Your task to perform on an android device: check battery use Image 0: 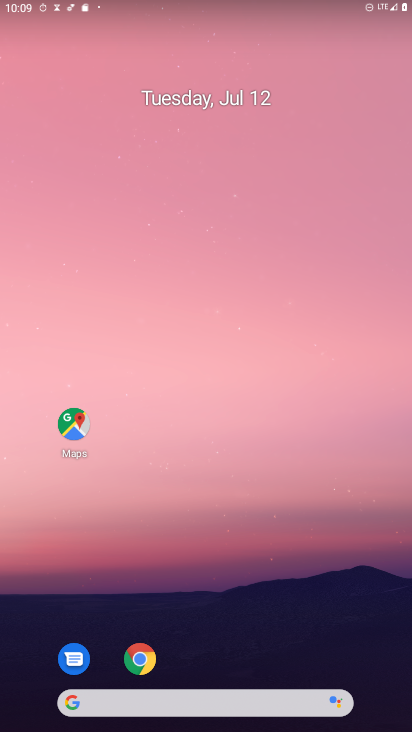
Step 0: drag from (198, 698) to (218, 256)
Your task to perform on an android device: check battery use Image 1: 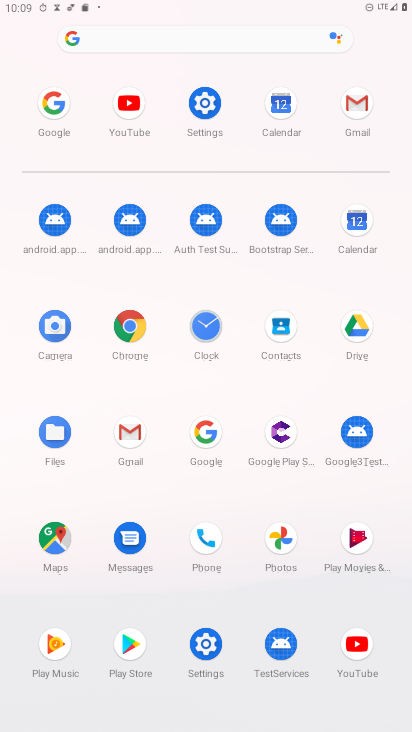
Step 1: click (203, 107)
Your task to perform on an android device: check battery use Image 2: 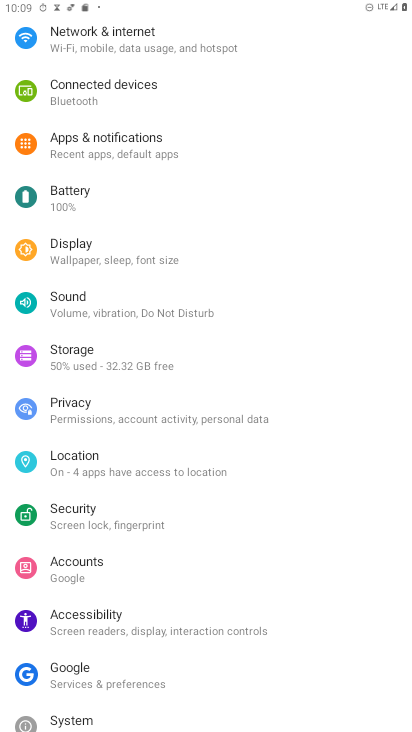
Step 2: click (85, 197)
Your task to perform on an android device: check battery use Image 3: 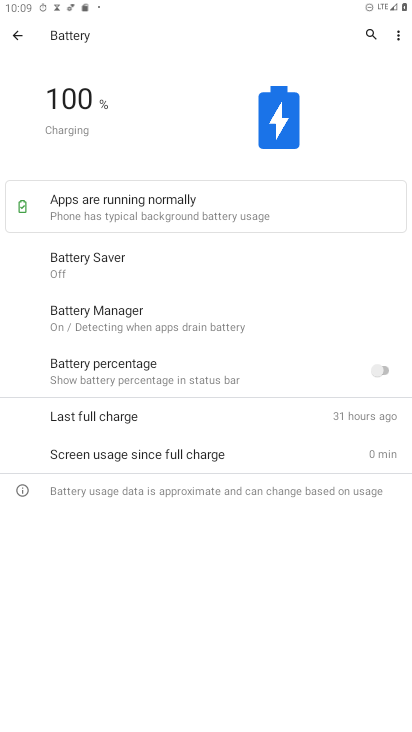
Step 3: click (189, 104)
Your task to perform on an android device: check battery use Image 4: 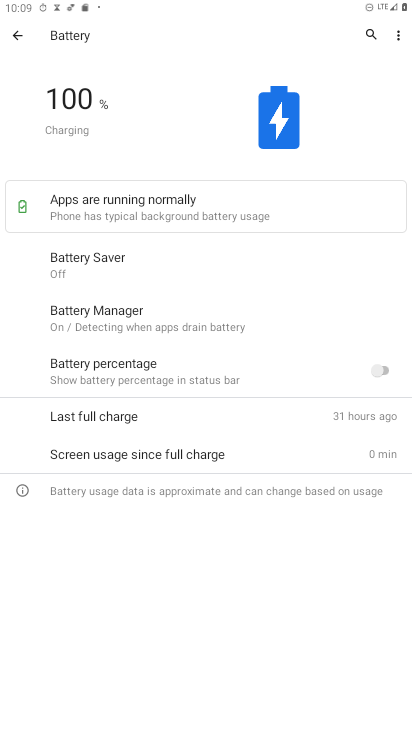
Step 4: click (189, 104)
Your task to perform on an android device: check battery use Image 5: 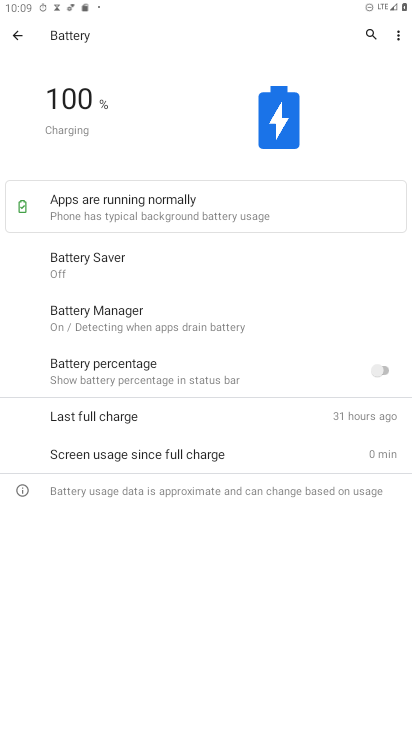
Step 5: click (396, 33)
Your task to perform on an android device: check battery use Image 6: 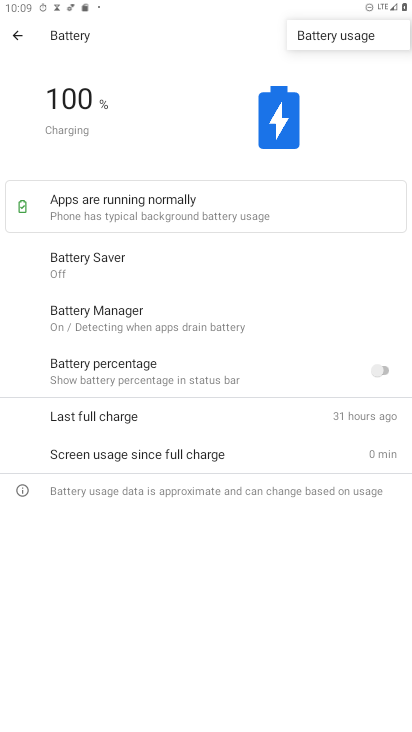
Step 6: click (354, 34)
Your task to perform on an android device: check battery use Image 7: 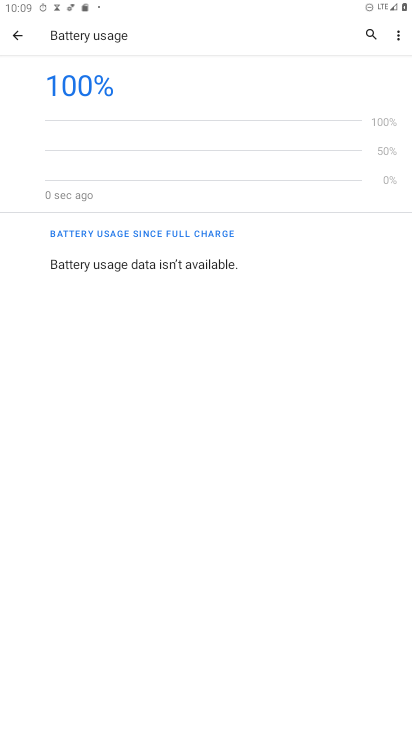
Step 7: task complete